Your task to perform on an android device: change notification settings in the gmail app Image 0: 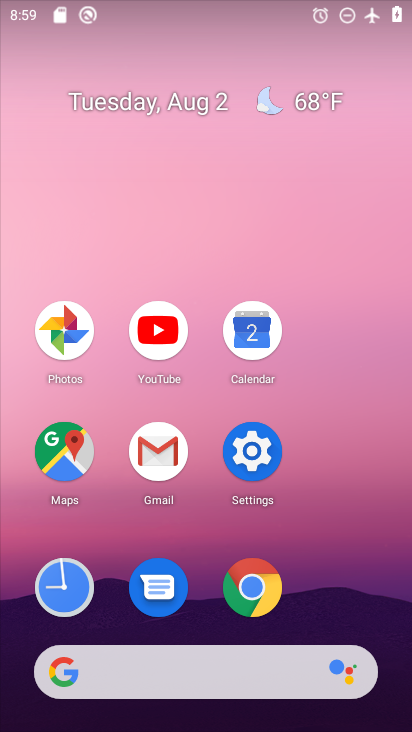
Step 0: click (153, 446)
Your task to perform on an android device: change notification settings in the gmail app Image 1: 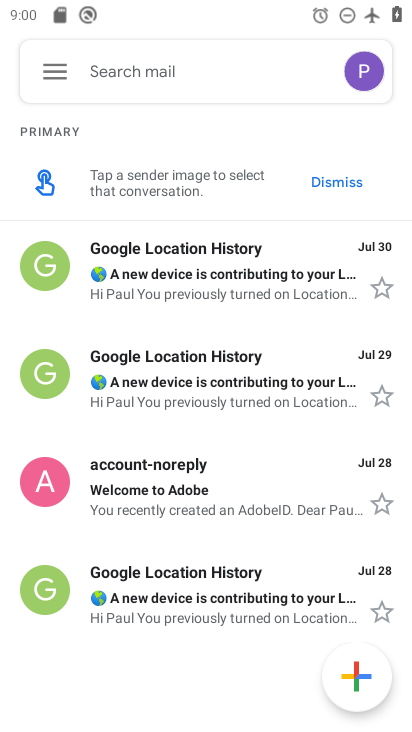
Step 1: click (53, 68)
Your task to perform on an android device: change notification settings in the gmail app Image 2: 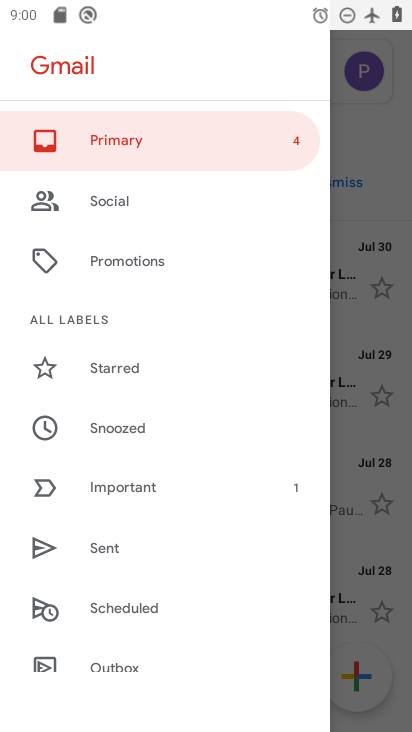
Step 2: drag from (179, 613) to (187, 255)
Your task to perform on an android device: change notification settings in the gmail app Image 3: 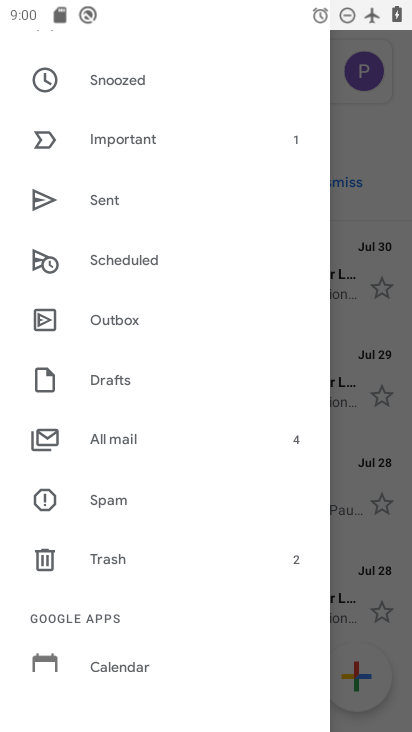
Step 3: drag from (147, 630) to (149, 290)
Your task to perform on an android device: change notification settings in the gmail app Image 4: 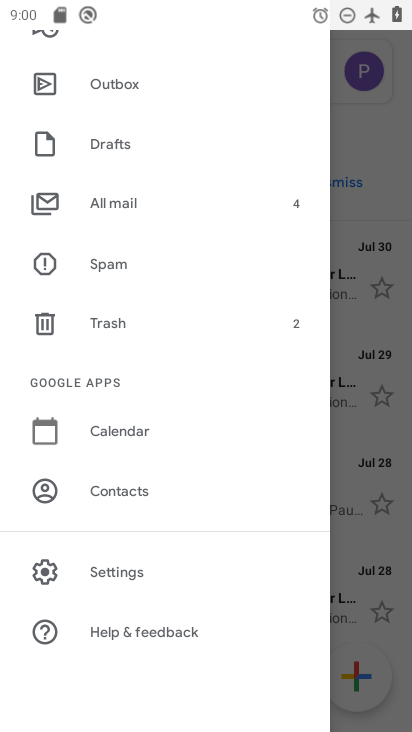
Step 4: click (117, 566)
Your task to perform on an android device: change notification settings in the gmail app Image 5: 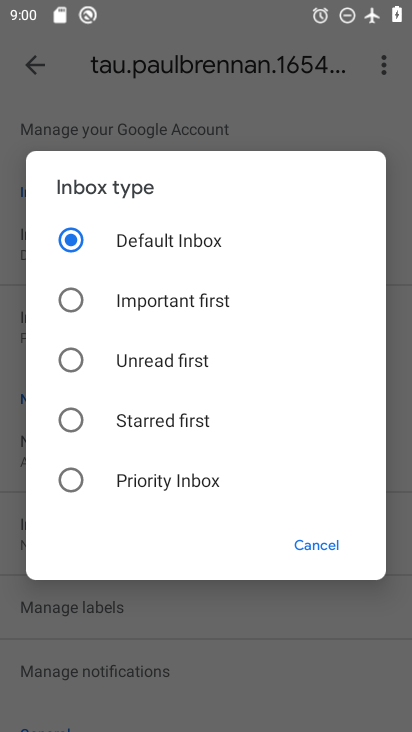
Step 5: click (307, 548)
Your task to perform on an android device: change notification settings in the gmail app Image 6: 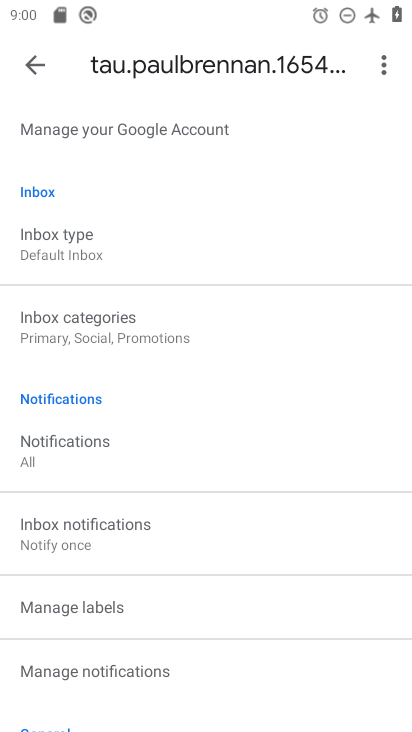
Step 6: click (41, 54)
Your task to perform on an android device: change notification settings in the gmail app Image 7: 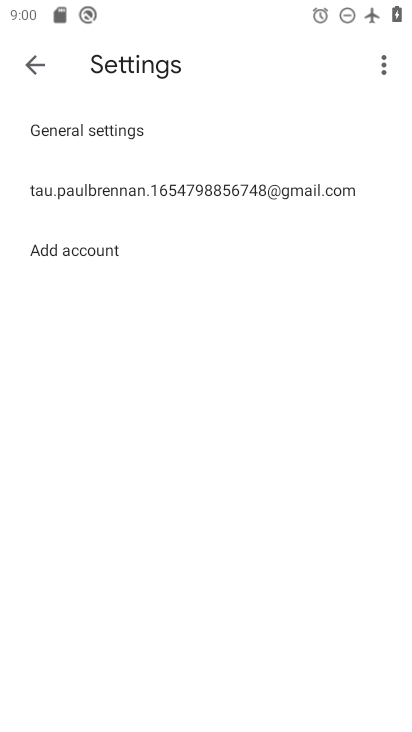
Step 7: click (71, 126)
Your task to perform on an android device: change notification settings in the gmail app Image 8: 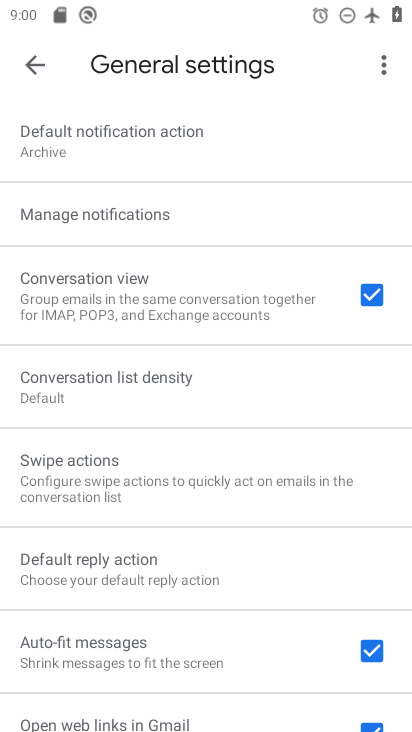
Step 8: click (85, 203)
Your task to perform on an android device: change notification settings in the gmail app Image 9: 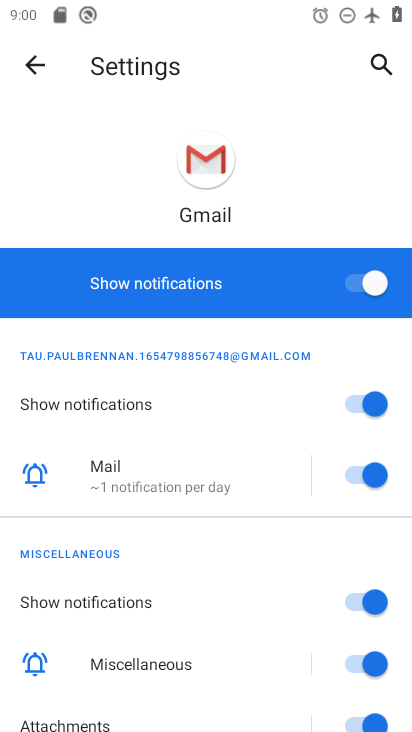
Step 9: click (373, 284)
Your task to perform on an android device: change notification settings in the gmail app Image 10: 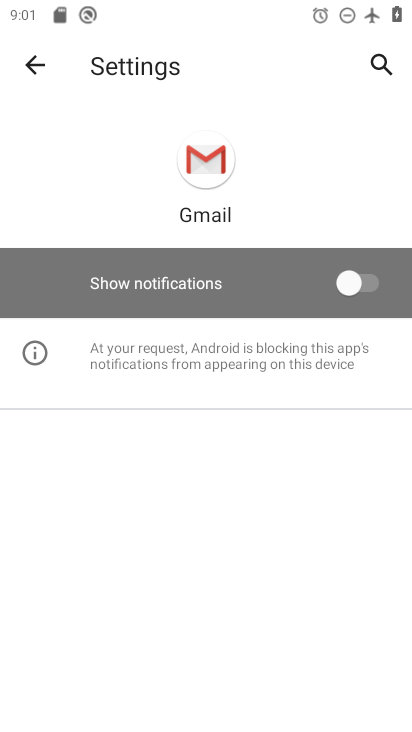
Step 10: task complete